Your task to perform on an android device: Is it going to rain today? Image 0: 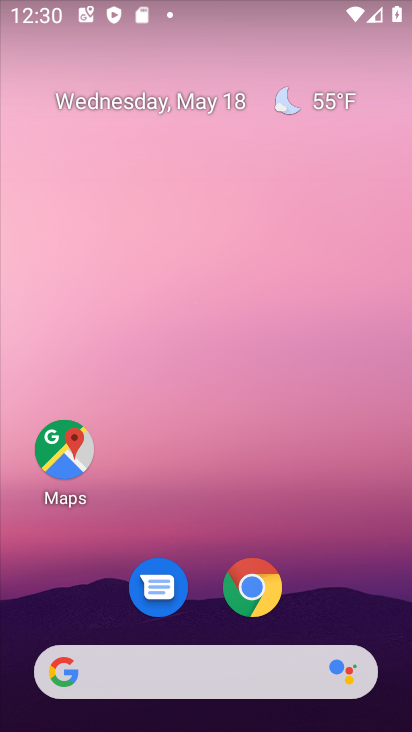
Step 0: drag from (290, 562) to (247, 70)
Your task to perform on an android device: Is it going to rain today? Image 1: 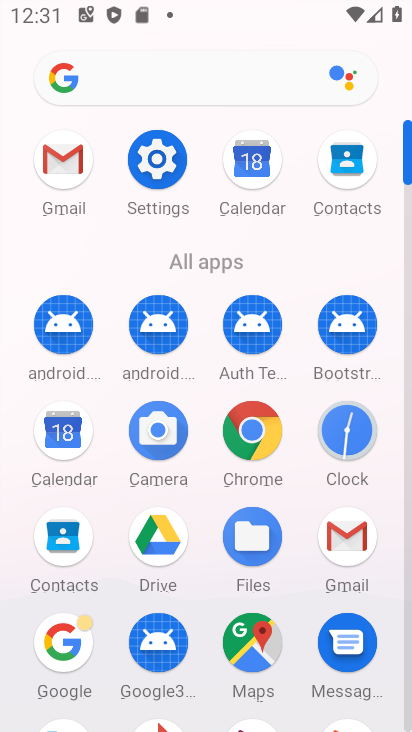
Step 1: click (76, 644)
Your task to perform on an android device: Is it going to rain today? Image 2: 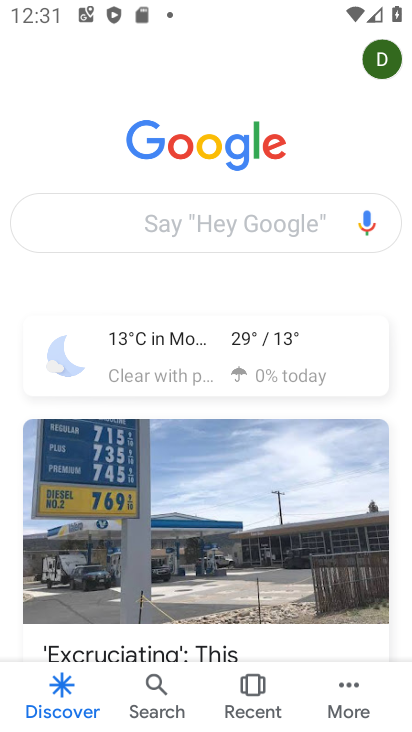
Step 2: click (187, 220)
Your task to perform on an android device: Is it going to rain today? Image 3: 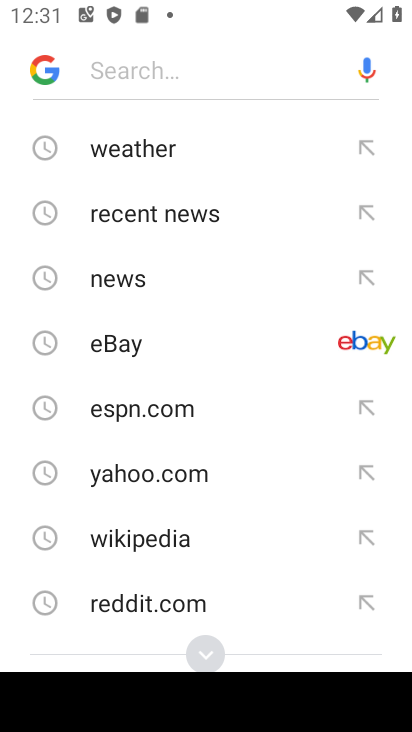
Step 3: click (157, 151)
Your task to perform on an android device: Is it going to rain today? Image 4: 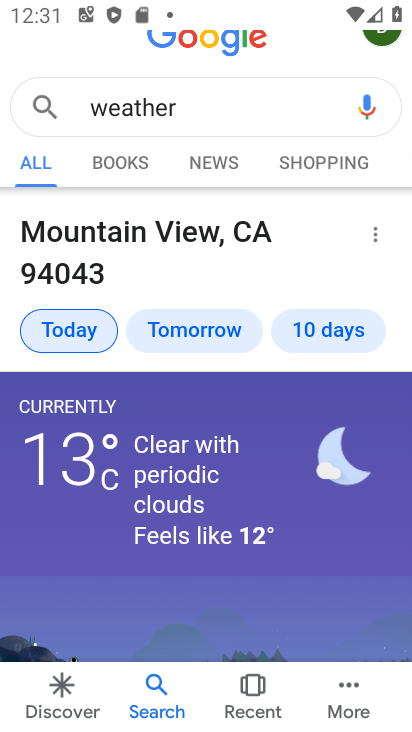
Step 4: task complete